Your task to perform on an android device: turn off translation in the chrome app Image 0: 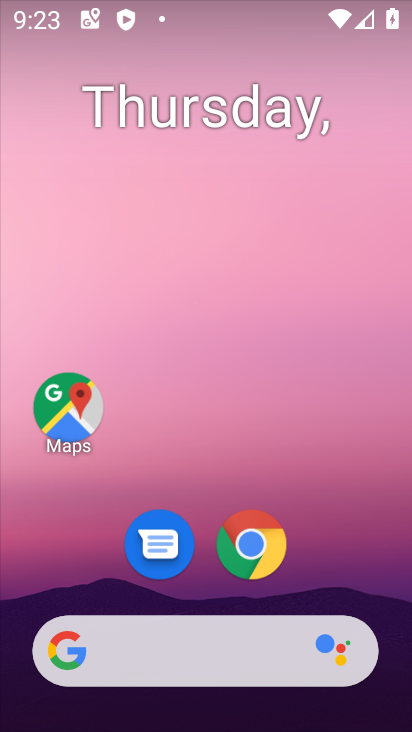
Step 0: click (251, 547)
Your task to perform on an android device: turn off translation in the chrome app Image 1: 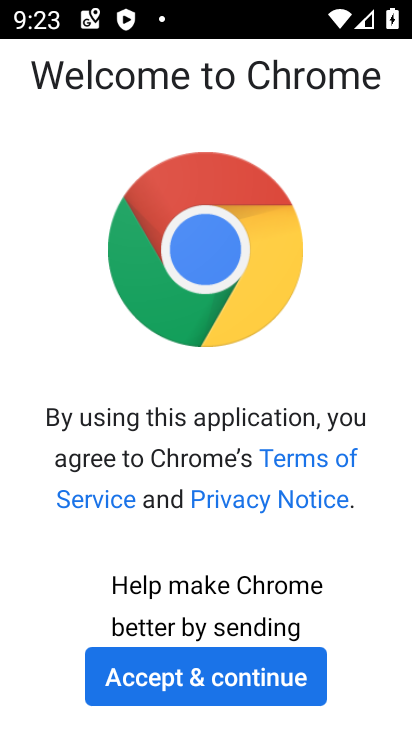
Step 1: click (190, 666)
Your task to perform on an android device: turn off translation in the chrome app Image 2: 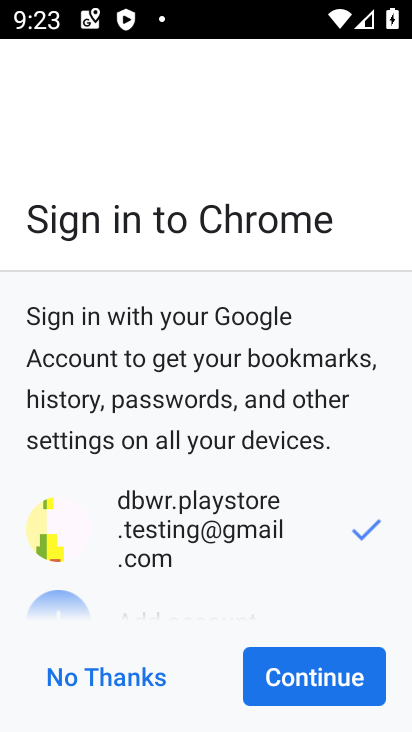
Step 2: click (332, 674)
Your task to perform on an android device: turn off translation in the chrome app Image 3: 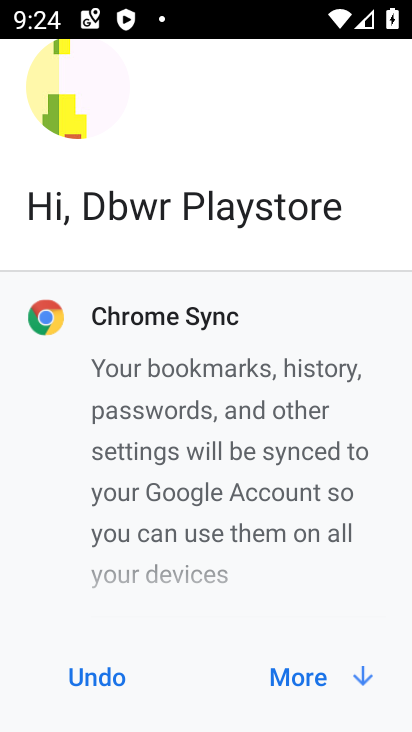
Step 3: click (332, 674)
Your task to perform on an android device: turn off translation in the chrome app Image 4: 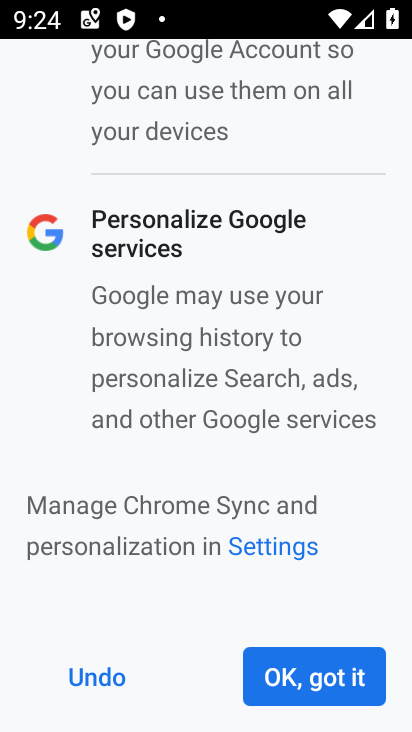
Step 4: click (334, 674)
Your task to perform on an android device: turn off translation in the chrome app Image 5: 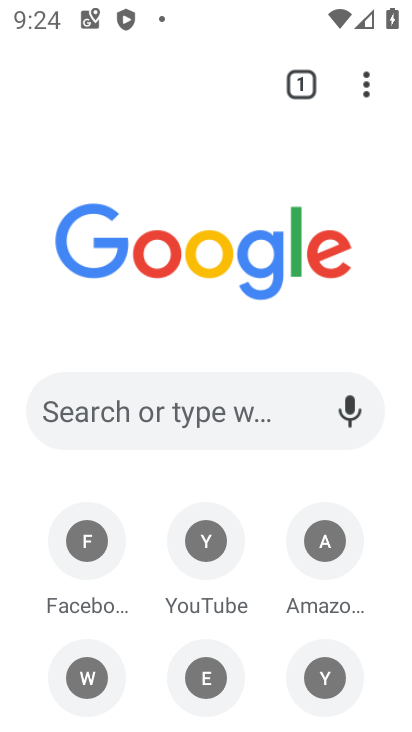
Step 5: click (362, 88)
Your task to perform on an android device: turn off translation in the chrome app Image 6: 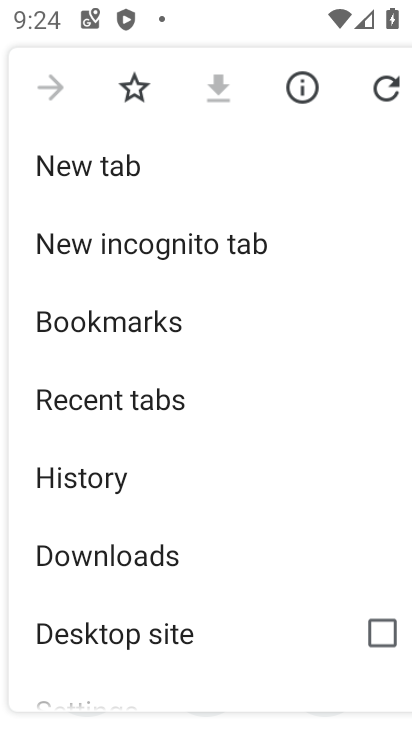
Step 6: drag from (322, 480) to (189, 141)
Your task to perform on an android device: turn off translation in the chrome app Image 7: 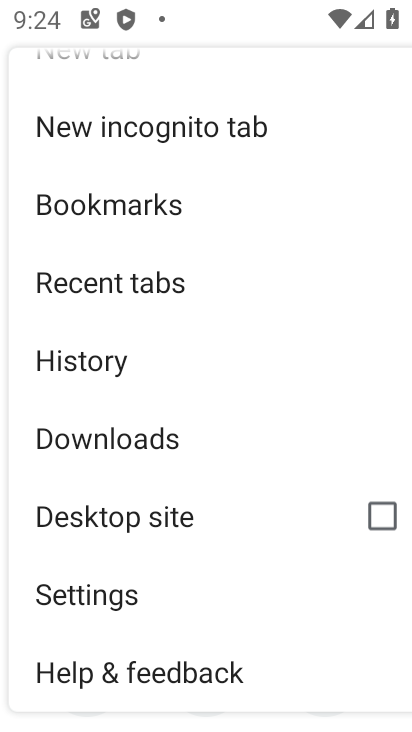
Step 7: click (103, 588)
Your task to perform on an android device: turn off translation in the chrome app Image 8: 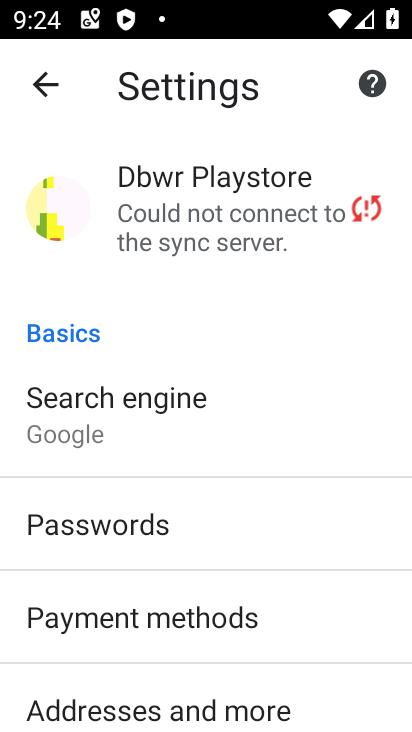
Step 8: drag from (317, 609) to (234, 264)
Your task to perform on an android device: turn off translation in the chrome app Image 9: 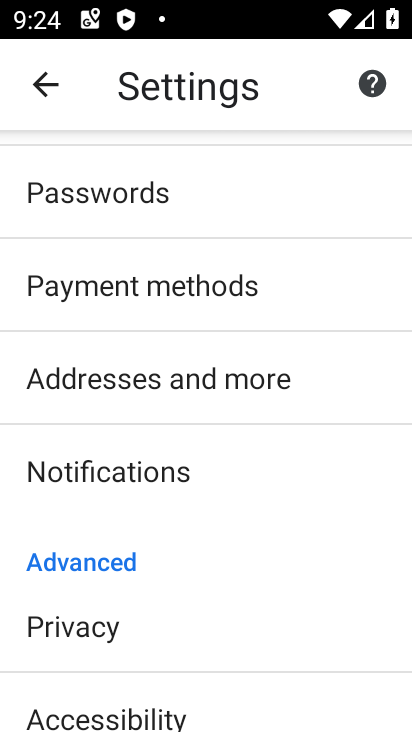
Step 9: drag from (231, 573) to (231, 217)
Your task to perform on an android device: turn off translation in the chrome app Image 10: 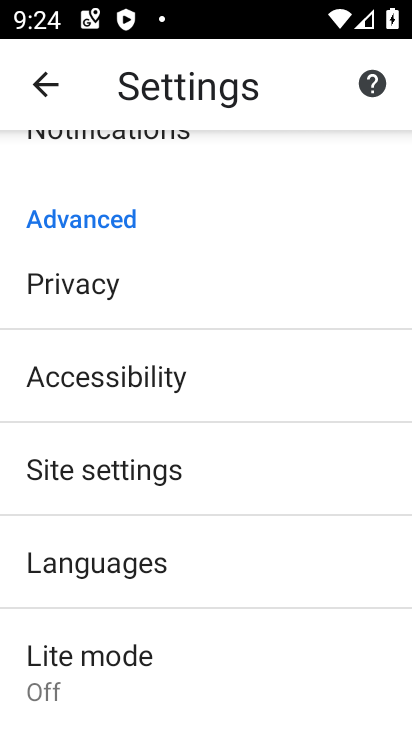
Step 10: click (136, 557)
Your task to perform on an android device: turn off translation in the chrome app Image 11: 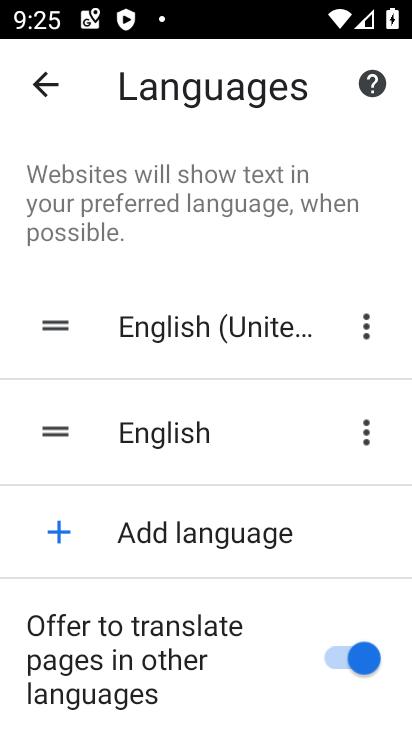
Step 11: click (354, 659)
Your task to perform on an android device: turn off translation in the chrome app Image 12: 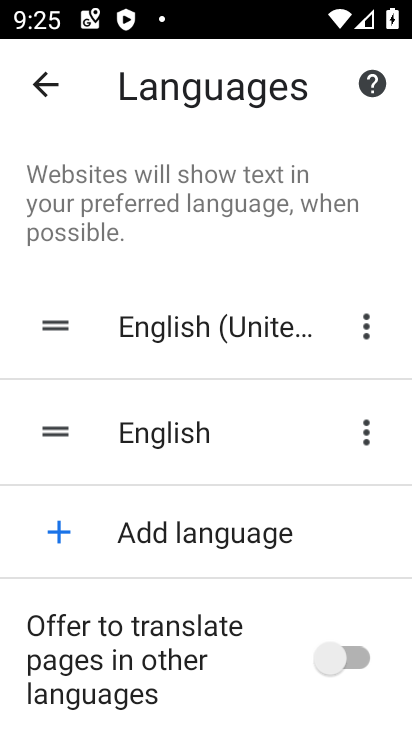
Step 12: task complete